Your task to perform on an android device: open sync settings in chrome Image 0: 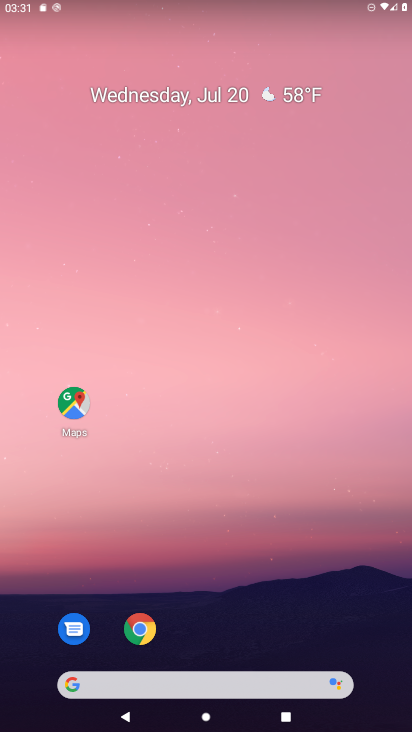
Step 0: drag from (224, 608) to (309, 142)
Your task to perform on an android device: open sync settings in chrome Image 1: 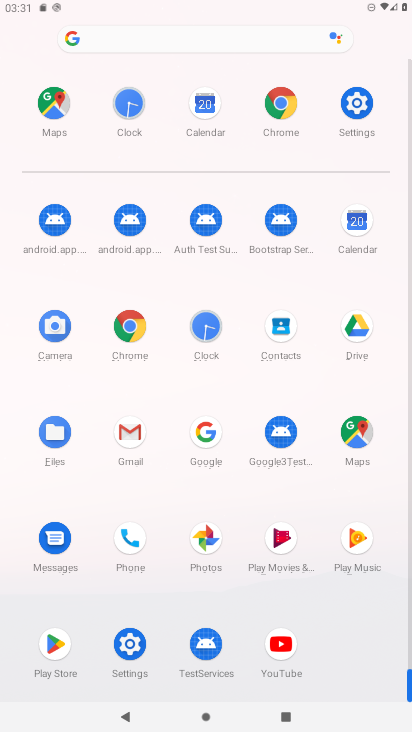
Step 1: click (135, 334)
Your task to perform on an android device: open sync settings in chrome Image 2: 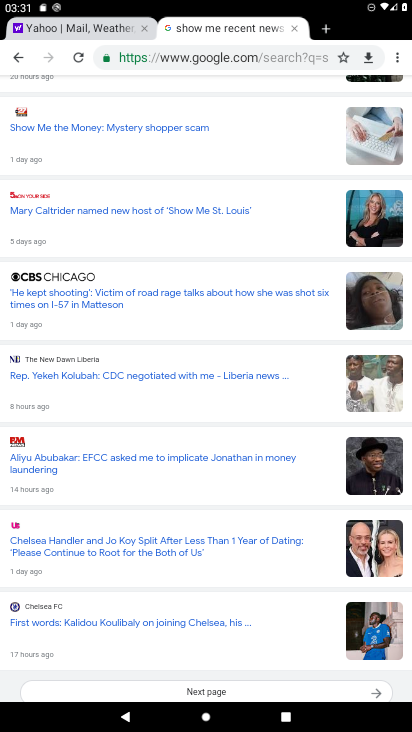
Step 2: drag from (399, 51) to (289, 355)
Your task to perform on an android device: open sync settings in chrome Image 3: 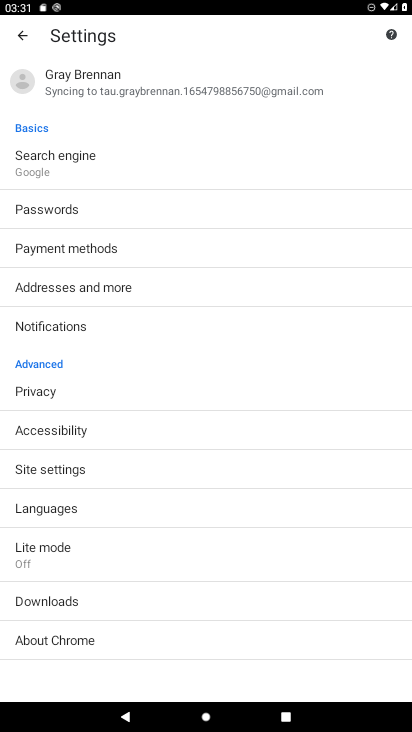
Step 3: click (38, 88)
Your task to perform on an android device: open sync settings in chrome Image 4: 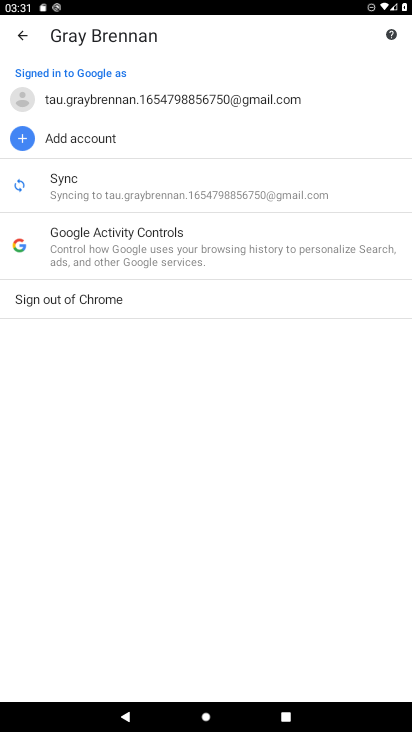
Step 4: click (123, 181)
Your task to perform on an android device: open sync settings in chrome Image 5: 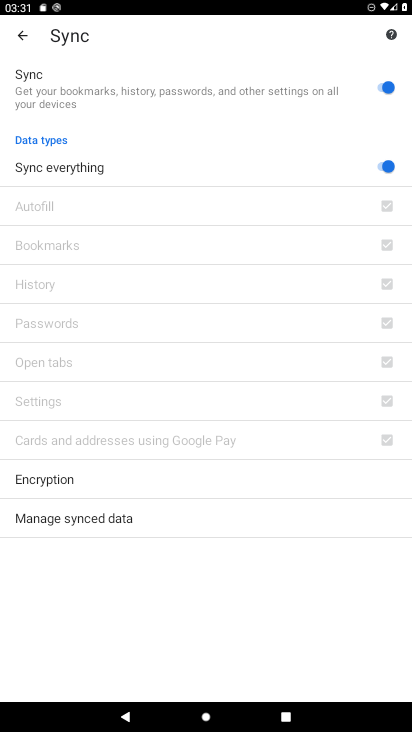
Step 5: task complete